Your task to perform on an android device: check android version Image 0: 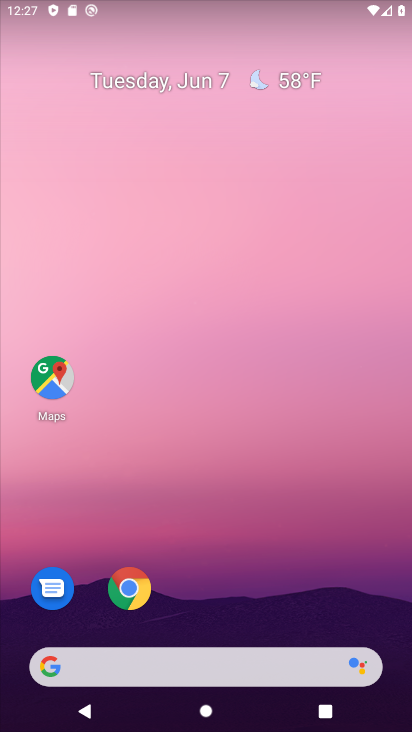
Step 0: drag from (326, 595) to (216, 100)
Your task to perform on an android device: check android version Image 1: 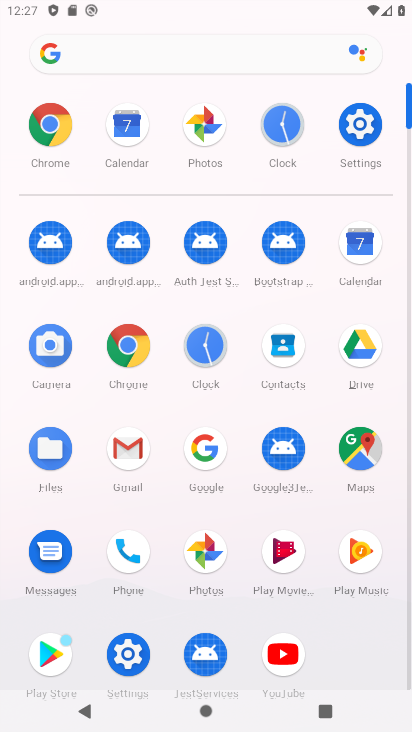
Step 1: click (345, 146)
Your task to perform on an android device: check android version Image 2: 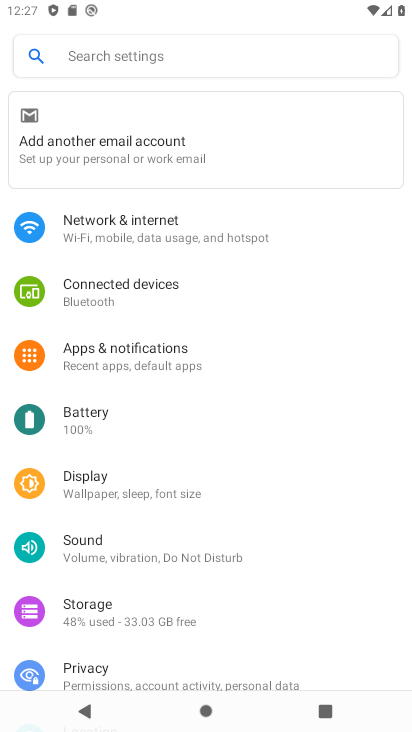
Step 2: task complete